Your task to perform on an android device: turn on sleep mode Image 0: 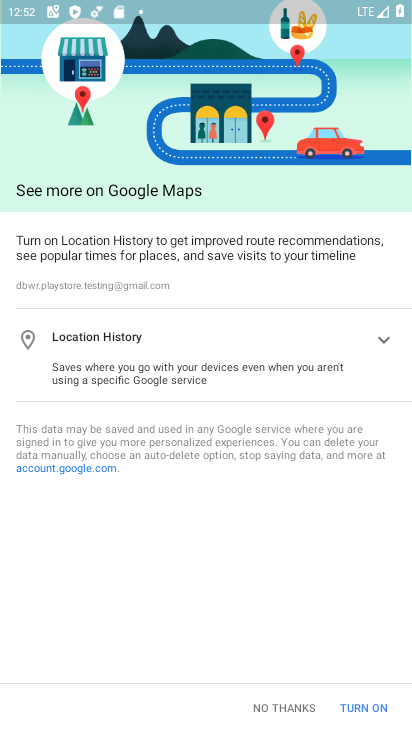
Step 0: press home button
Your task to perform on an android device: turn on sleep mode Image 1: 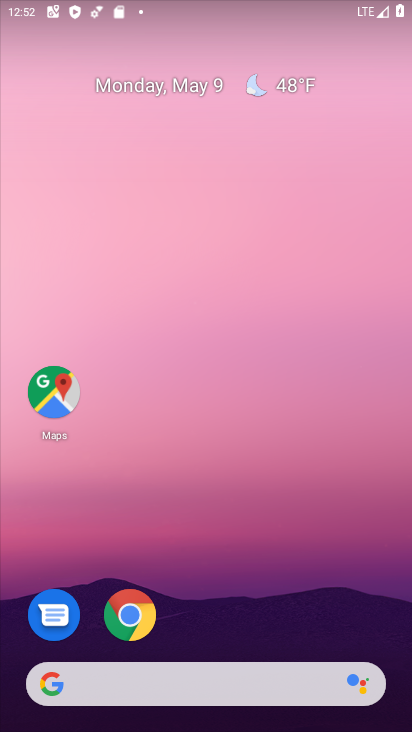
Step 1: drag from (373, 635) to (302, 126)
Your task to perform on an android device: turn on sleep mode Image 2: 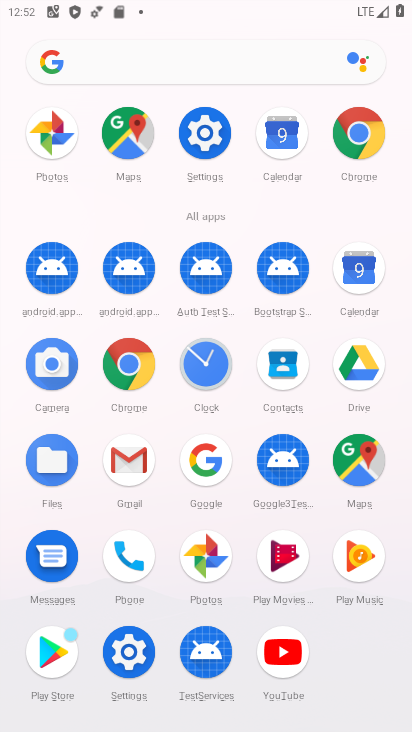
Step 2: click (124, 653)
Your task to perform on an android device: turn on sleep mode Image 3: 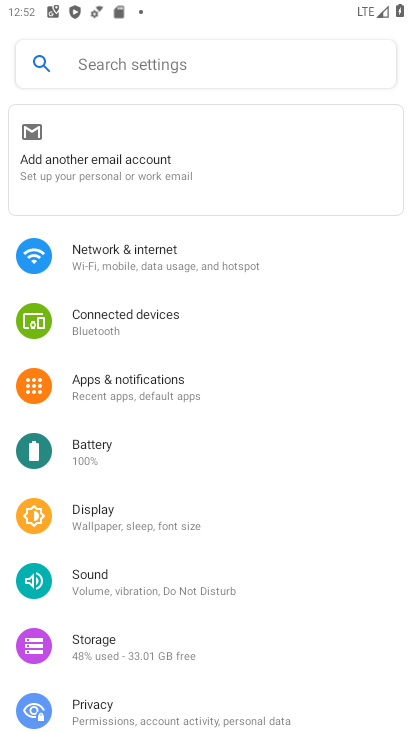
Step 3: click (106, 517)
Your task to perform on an android device: turn on sleep mode Image 4: 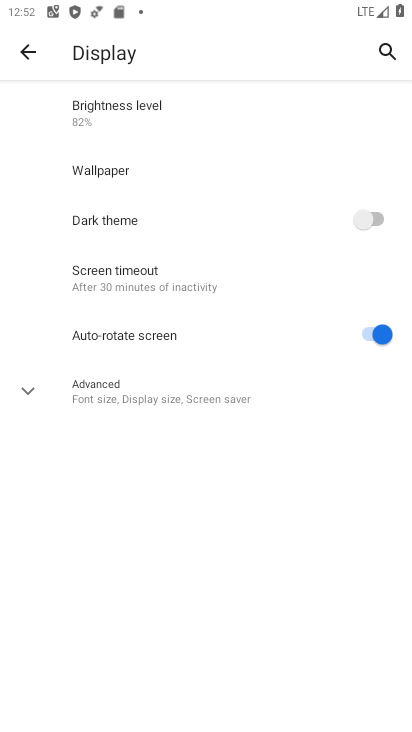
Step 4: click (21, 388)
Your task to perform on an android device: turn on sleep mode Image 5: 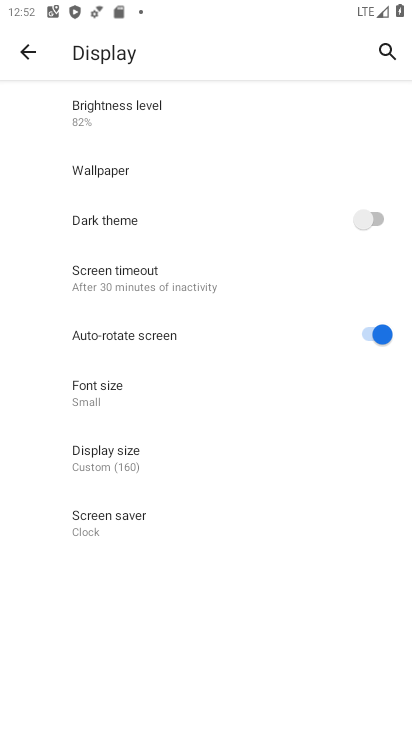
Step 5: task complete